Your task to perform on an android device: Go to calendar. Show me events next week Image 0: 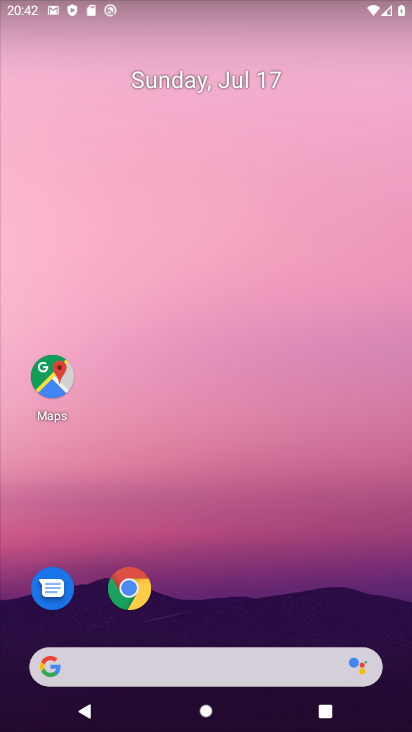
Step 0: press home button
Your task to perform on an android device: Go to calendar. Show me events next week Image 1: 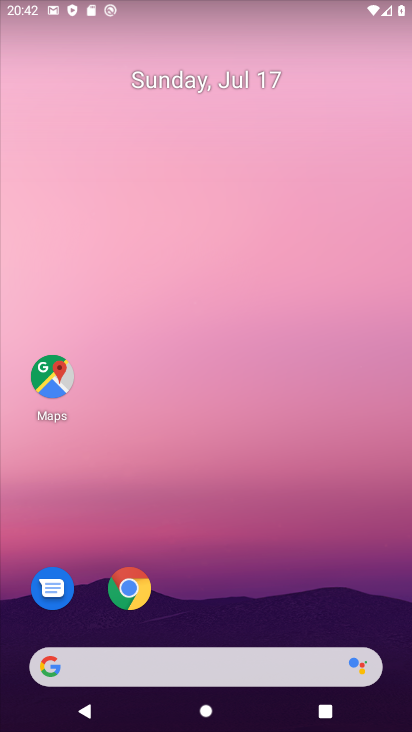
Step 1: drag from (348, 646) to (411, 37)
Your task to perform on an android device: Go to calendar. Show me events next week Image 2: 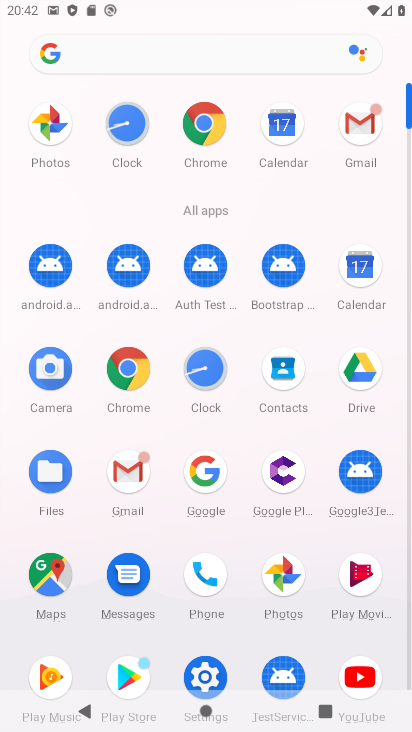
Step 2: click (368, 257)
Your task to perform on an android device: Go to calendar. Show me events next week Image 3: 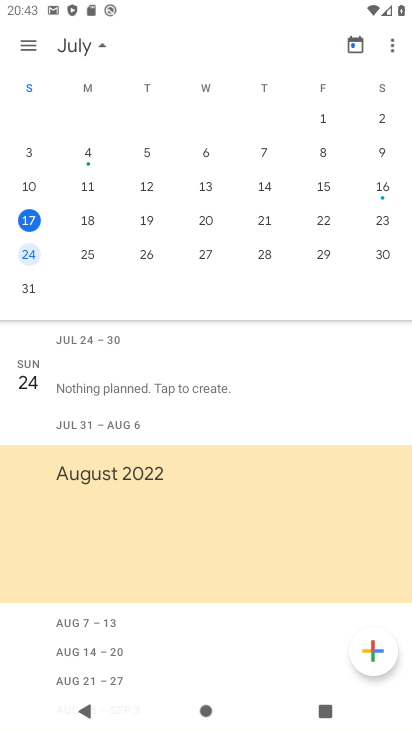
Step 3: click (25, 260)
Your task to perform on an android device: Go to calendar. Show me events next week Image 4: 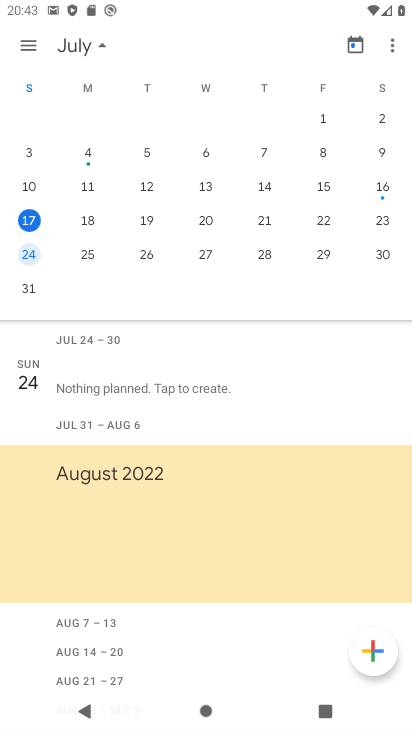
Step 4: task complete